Your task to perform on an android device: turn on airplane mode Image 0: 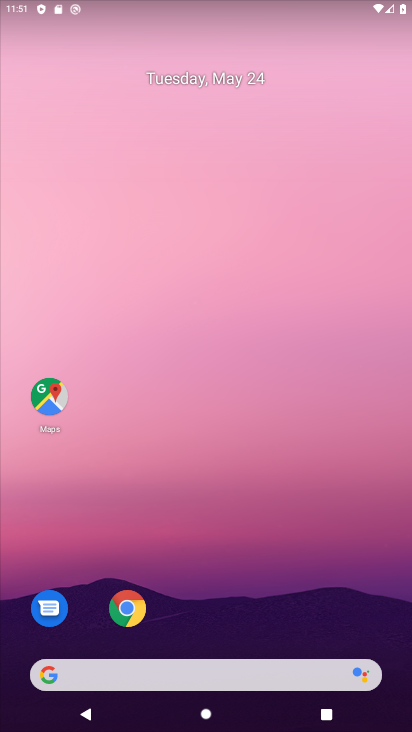
Step 0: drag from (303, 587) to (352, 189)
Your task to perform on an android device: turn on airplane mode Image 1: 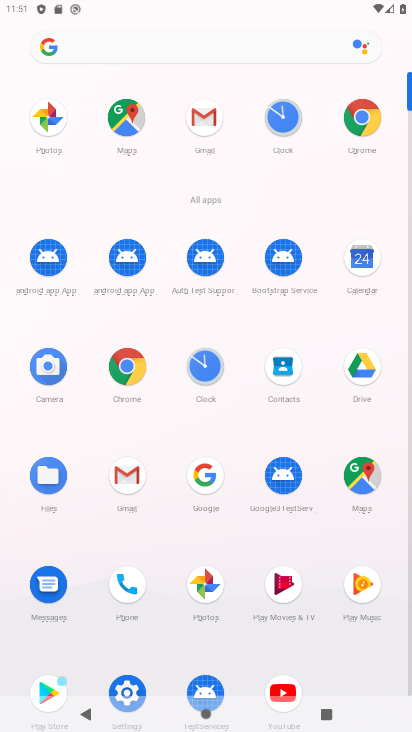
Step 1: click (130, 681)
Your task to perform on an android device: turn on airplane mode Image 2: 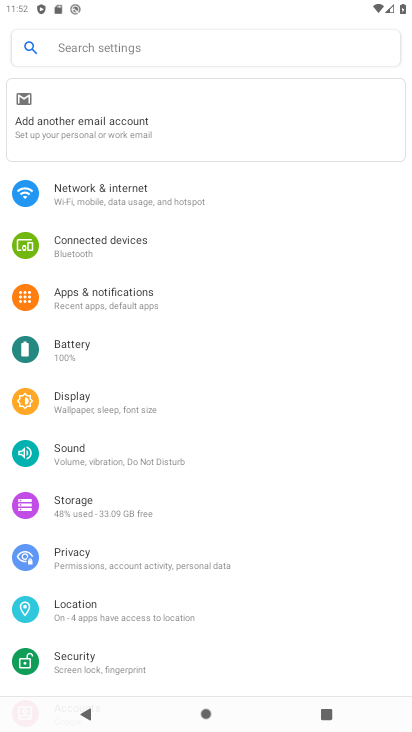
Step 2: click (147, 205)
Your task to perform on an android device: turn on airplane mode Image 3: 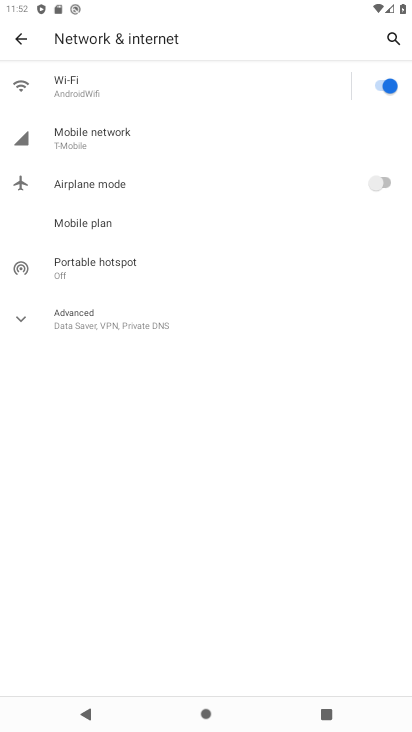
Step 3: click (386, 182)
Your task to perform on an android device: turn on airplane mode Image 4: 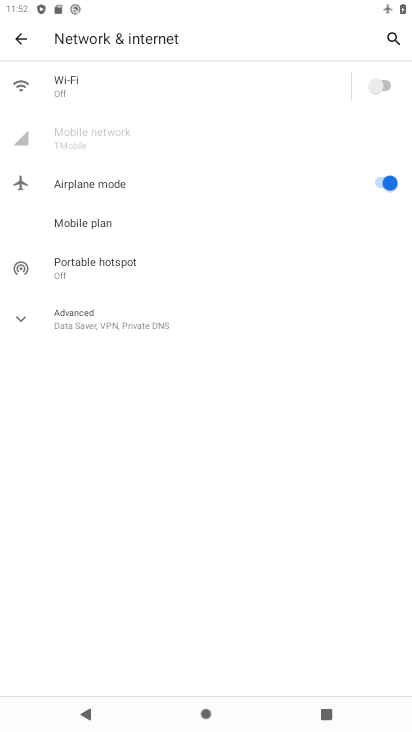
Step 4: task complete